Your task to perform on an android device: turn off notifications in google photos Image 0: 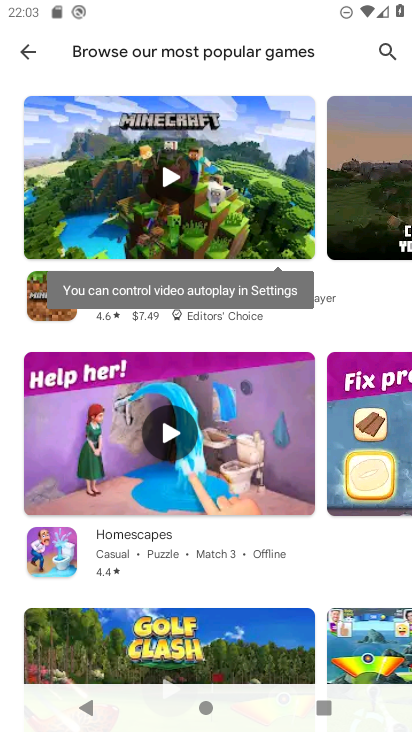
Step 0: press home button
Your task to perform on an android device: turn off notifications in google photos Image 1: 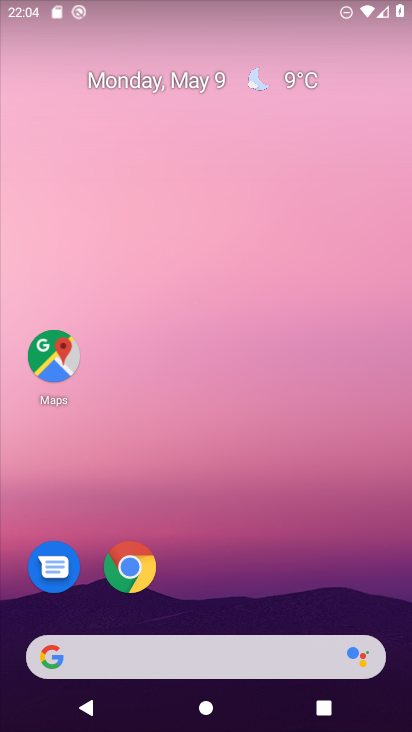
Step 1: drag from (243, 559) to (242, 87)
Your task to perform on an android device: turn off notifications in google photos Image 2: 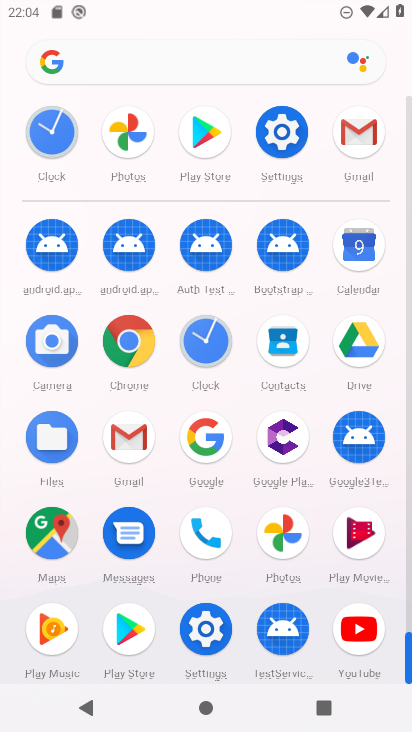
Step 2: click (280, 123)
Your task to perform on an android device: turn off notifications in google photos Image 3: 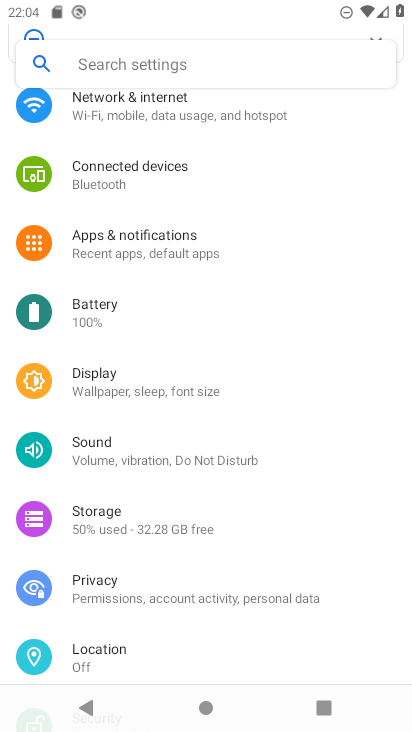
Step 3: click (181, 244)
Your task to perform on an android device: turn off notifications in google photos Image 4: 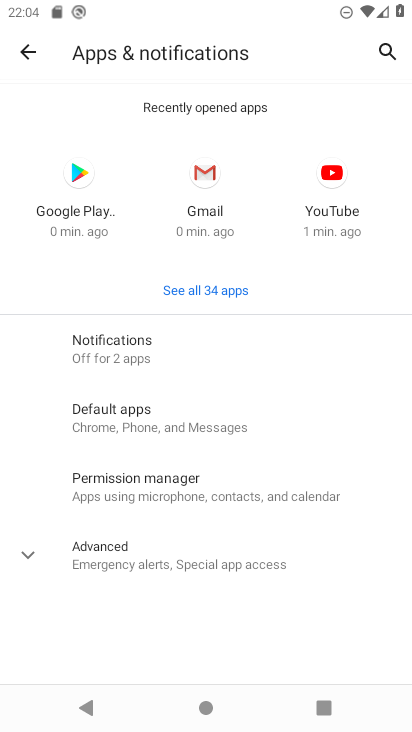
Step 4: click (184, 282)
Your task to perform on an android device: turn off notifications in google photos Image 5: 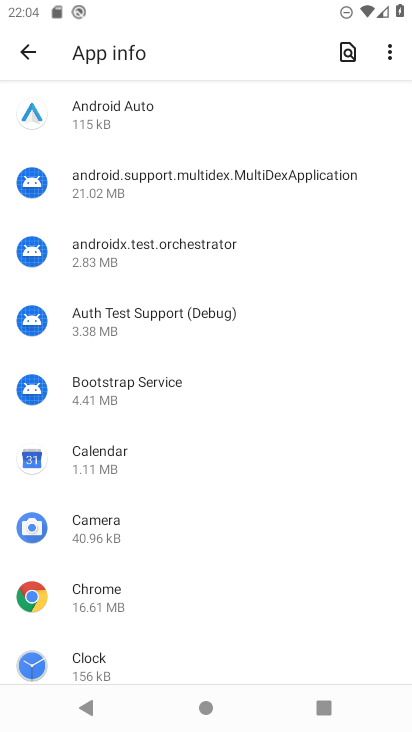
Step 5: drag from (220, 657) to (278, 14)
Your task to perform on an android device: turn off notifications in google photos Image 6: 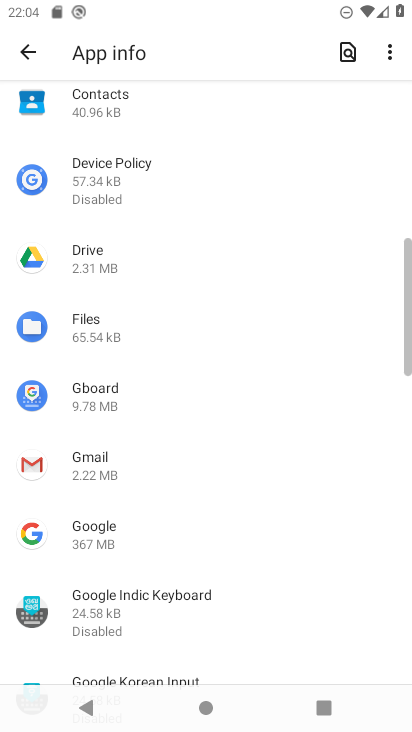
Step 6: drag from (226, 656) to (278, 0)
Your task to perform on an android device: turn off notifications in google photos Image 7: 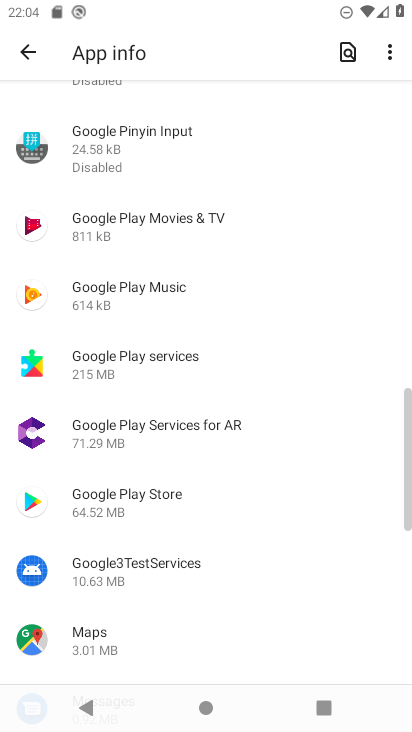
Step 7: drag from (165, 630) to (193, 78)
Your task to perform on an android device: turn off notifications in google photos Image 8: 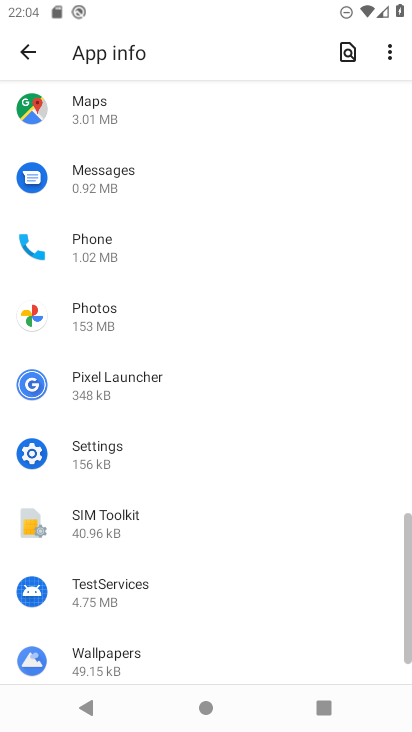
Step 8: click (78, 307)
Your task to perform on an android device: turn off notifications in google photos Image 9: 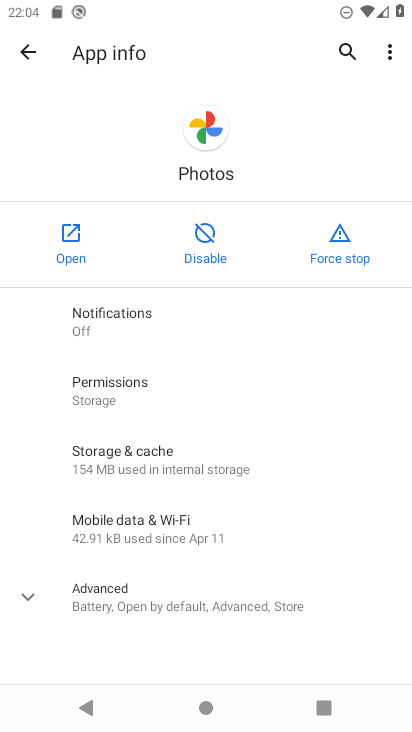
Step 9: task complete